Your task to perform on an android device: allow cookies in the chrome app Image 0: 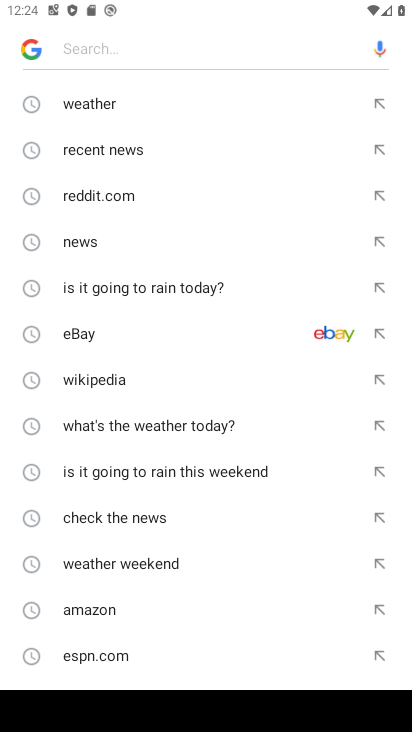
Step 0: press back button
Your task to perform on an android device: allow cookies in the chrome app Image 1: 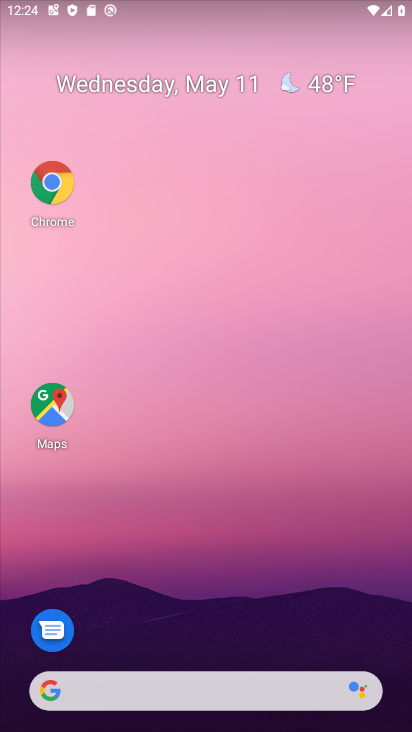
Step 1: drag from (215, 648) to (222, 5)
Your task to perform on an android device: allow cookies in the chrome app Image 2: 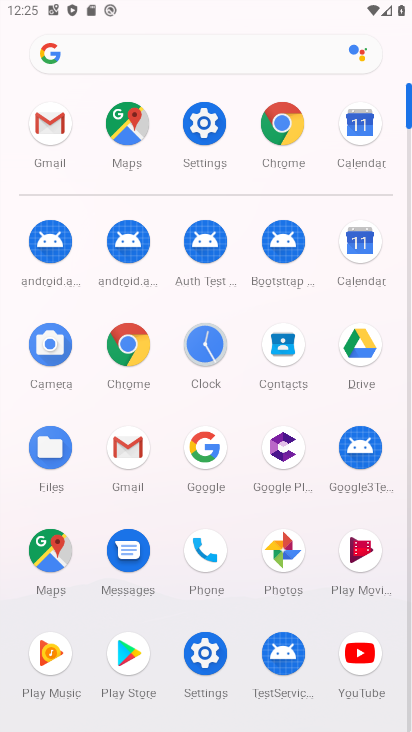
Step 2: click (274, 118)
Your task to perform on an android device: allow cookies in the chrome app Image 3: 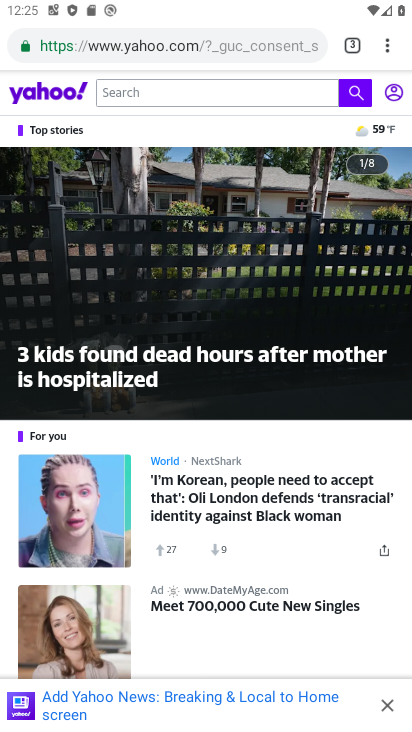
Step 3: click (384, 38)
Your task to perform on an android device: allow cookies in the chrome app Image 4: 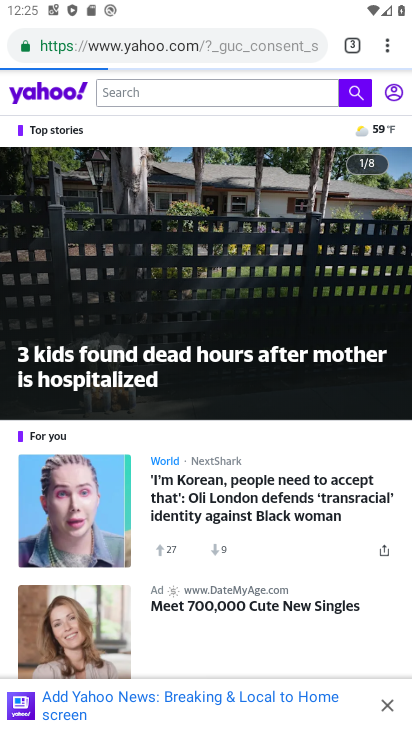
Step 4: drag from (382, 40) to (336, 551)
Your task to perform on an android device: allow cookies in the chrome app Image 5: 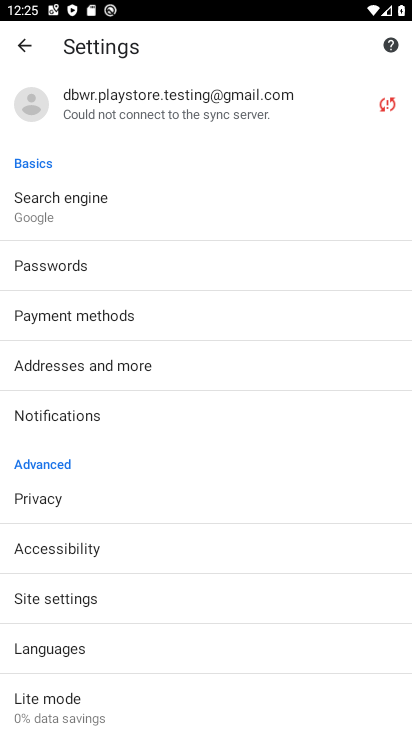
Step 5: click (132, 607)
Your task to perform on an android device: allow cookies in the chrome app Image 6: 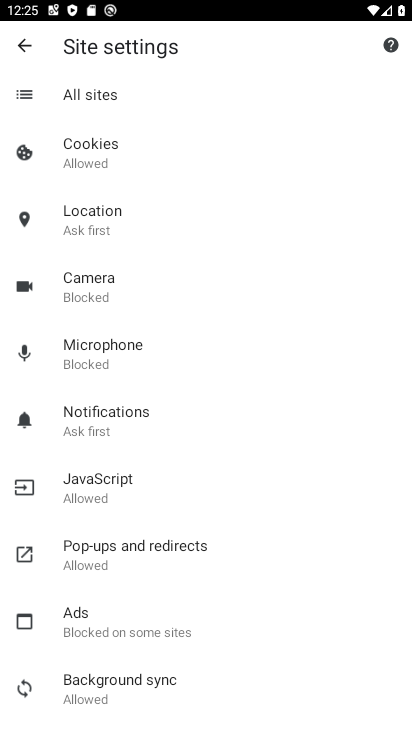
Step 6: click (116, 157)
Your task to perform on an android device: allow cookies in the chrome app Image 7: 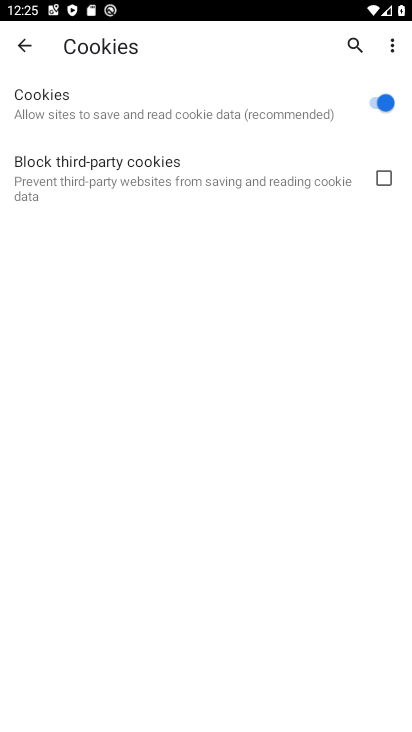
Step 7: task complete